Your task to perform on an android device: Open Google Image 0: 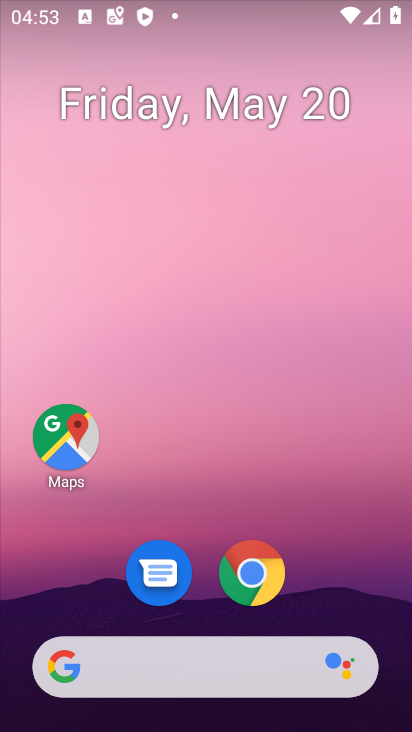
Step 0: click (250, 571)
Your task to perform on an android device: Open Google Image 1: 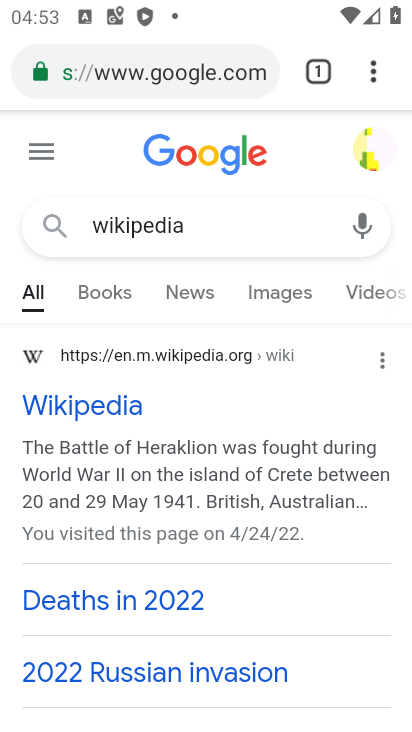
Step 1: task complete